Your task to perform on an android device: choose inbox layout in the gmail app Image 0: 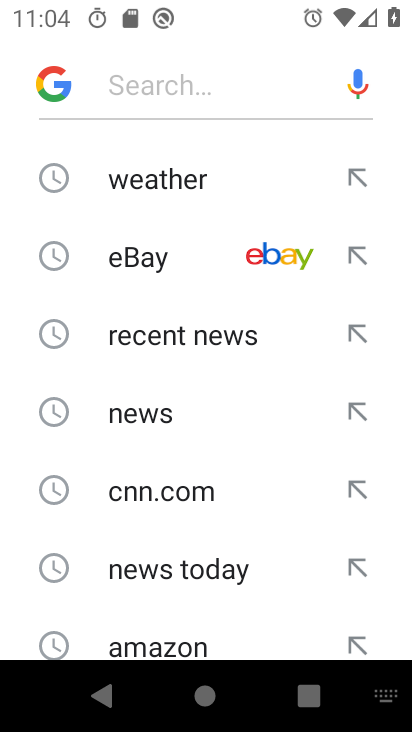
Step 0: press home button
Your task to perform on an android device: choose inbox layout in the gmail app Image 1: 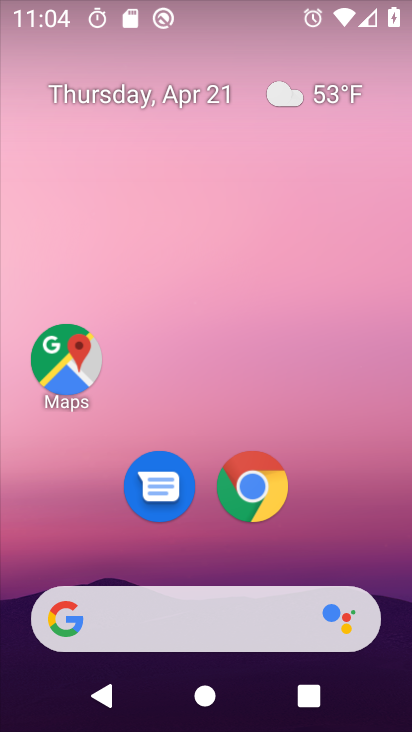
Step 1: click (388, 239)
Your task to perform on an android device: choose inbox layout in the gmail app Image 2: 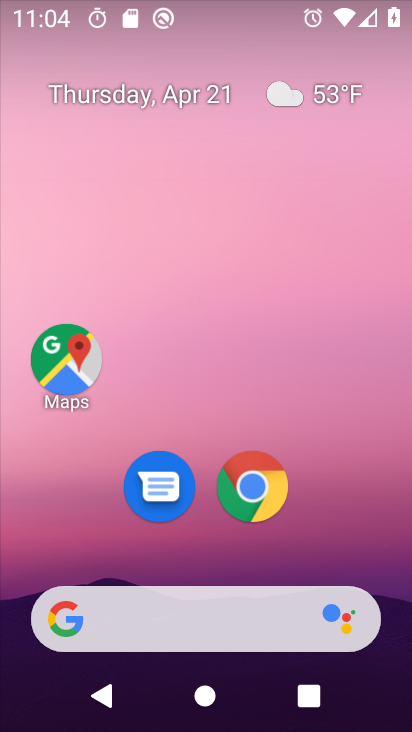
Step 2: drag from (373, 578) to (364, 137)
Your task to perform on an android device: choose inbox layout in the gmail app Image 3: 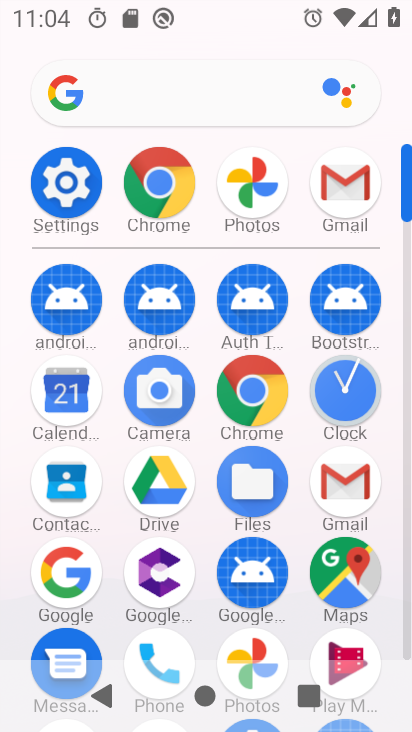
Step 3: click (345, 191)
Your task to perform on an android device: choose inbox layout in the gmail app Image 4: 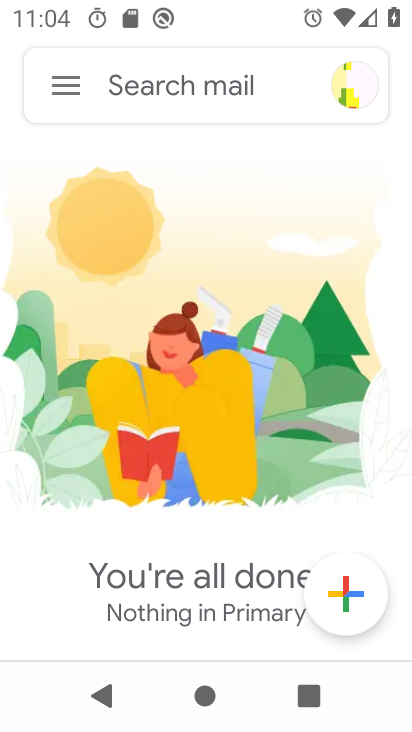
Step 4: click (63, 85)
Your task to perform on an android device: choose inbox layout in the gmail app Image 5: 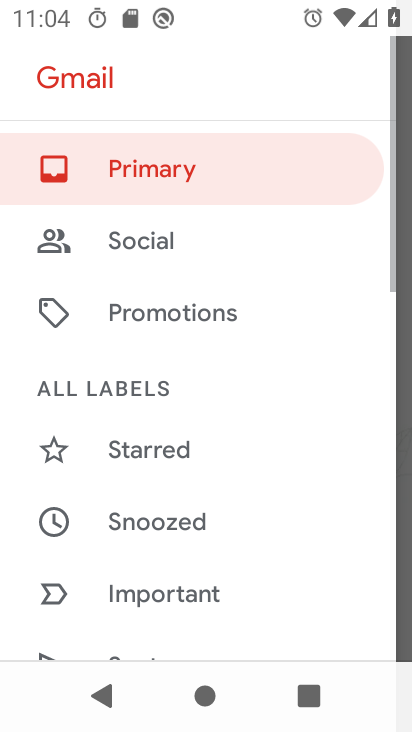
Step 5: click (140, 172)
Your task to perform on an android device: choose inbox layout in the gmail app Image 6: 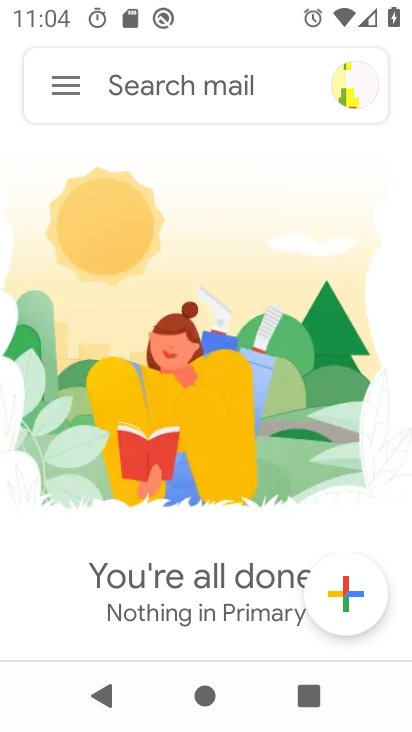
Step 6: task complete